Your task to perform on an android device: What's the weather? Image 0: 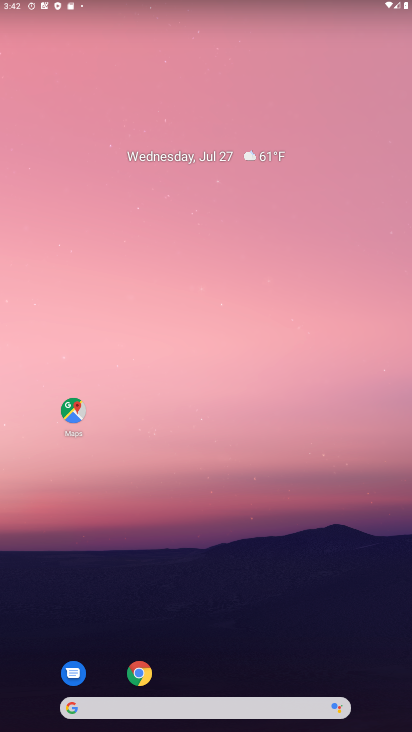
Step 0: drag from (43, 701) to (224, 202)
Your task to perform on an android device: What's the weather? Image 1: 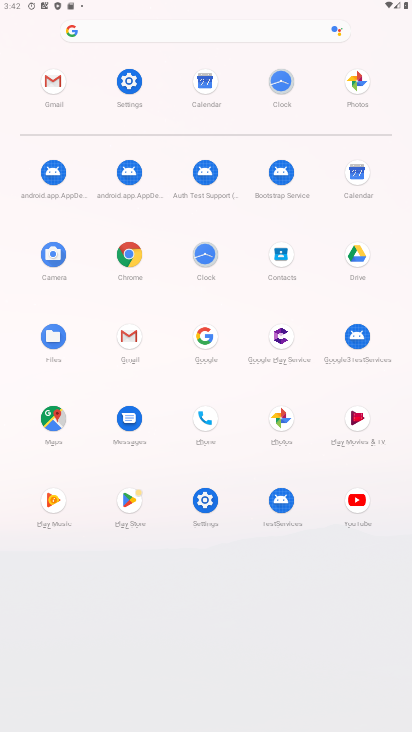
Step 1: click (111, 24)
Your task to perform on an android device: What's the weather? Image 2: 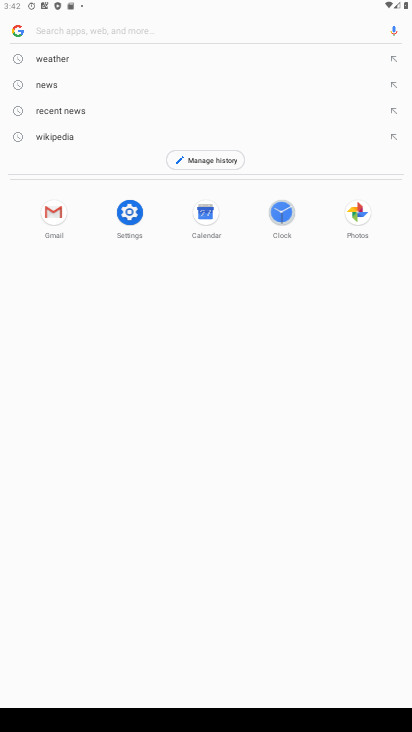
Step 2: click (46, 57)
Your task to perform on an android device: What's the weather? Image 3: 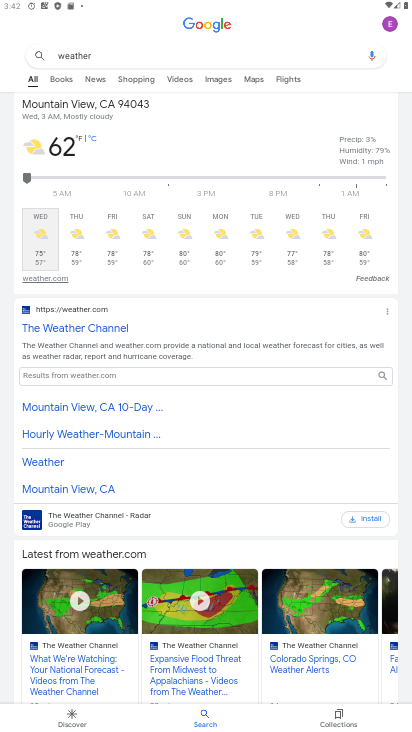
Step 3: task complete